Your task to perform on an android device: change the clock style Image 0: 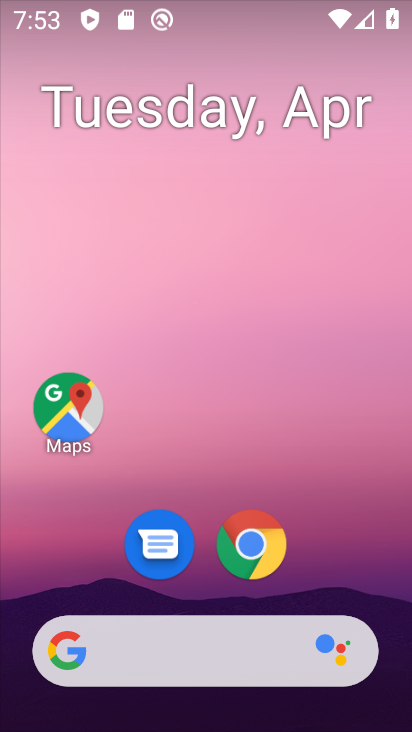
Step 0: drag from (244, 496) to (285, 10)
Your task to perform on an android device: change the clock style Image 1: 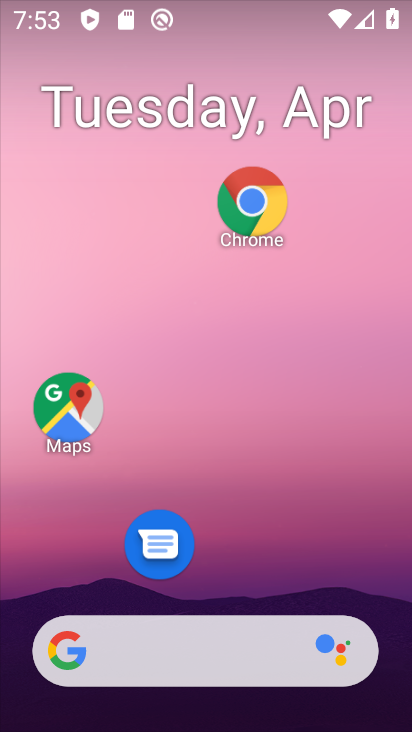
Step 1: drag from (242, 524) to (163, 95)
Your task to perform on an android device: change the clock style Image 2: 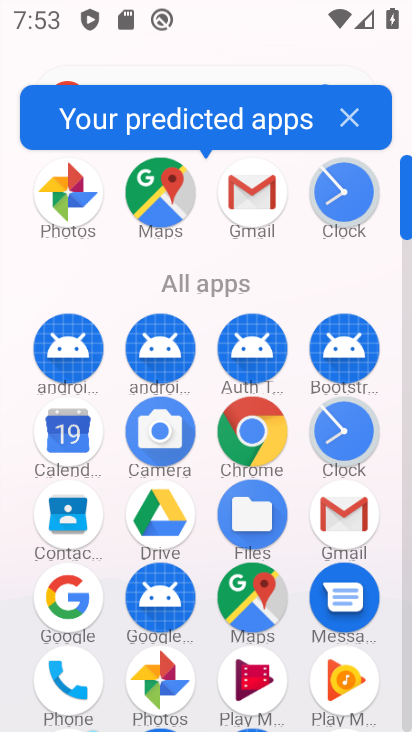
Step 2: click (335, 423)
Your task to perform on an android device: change the clock style Image 3: 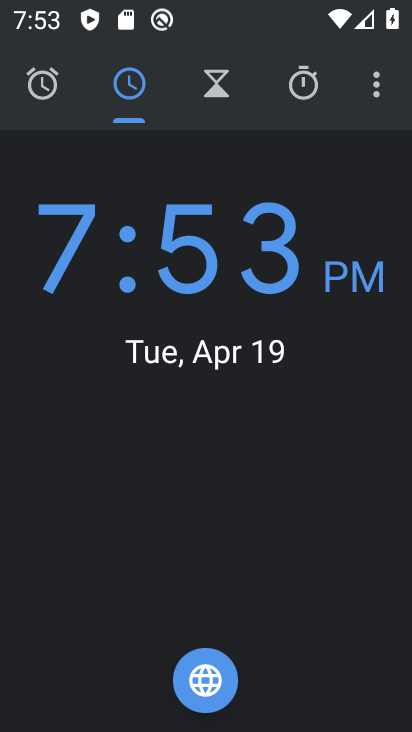
Step 3: click (379, 77)
Your task to perform on an android device: change the clock style Image 4: 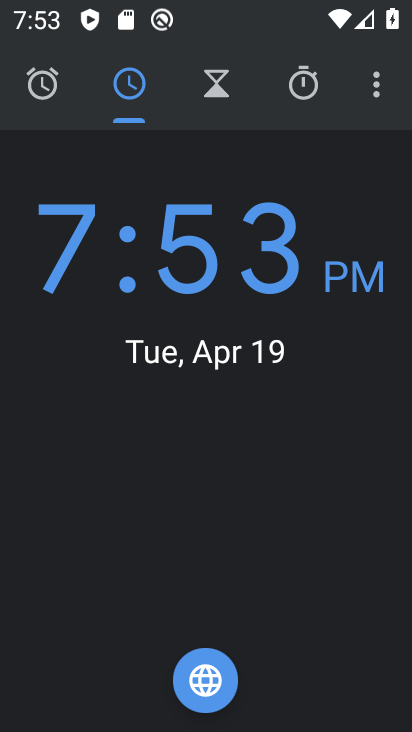
Step 4: click (370, 88)
Your task to perform on an android device: change the clock style Image 5: 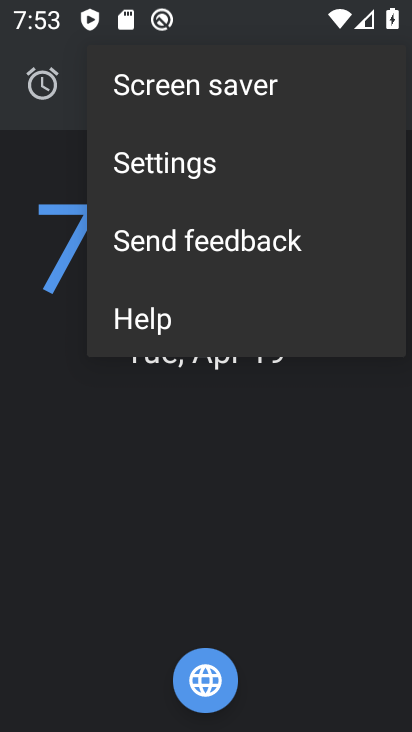
Step 5: click (163, 181)
Your task to perform on an android device: change the clock style Image 6: 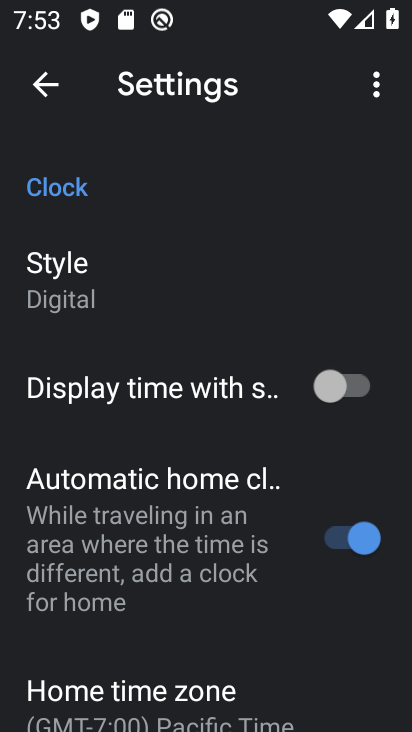
Step 6: click (114, 260)
Your task to perform on an android device: change the clock style Image 7: 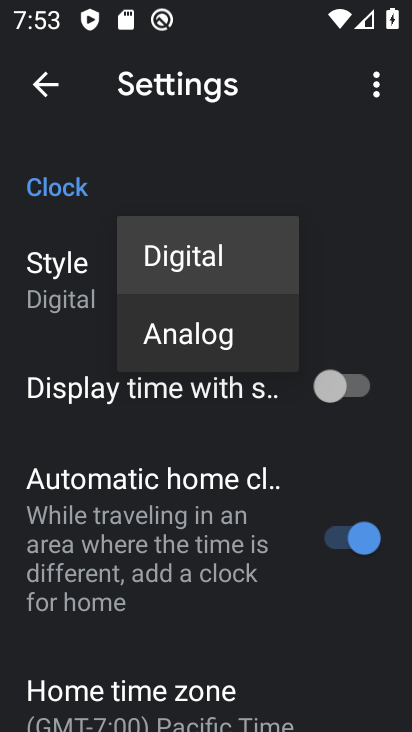
Step 7: click (179, 327)
Your task to perform on an android device: change the clock style Image 8: 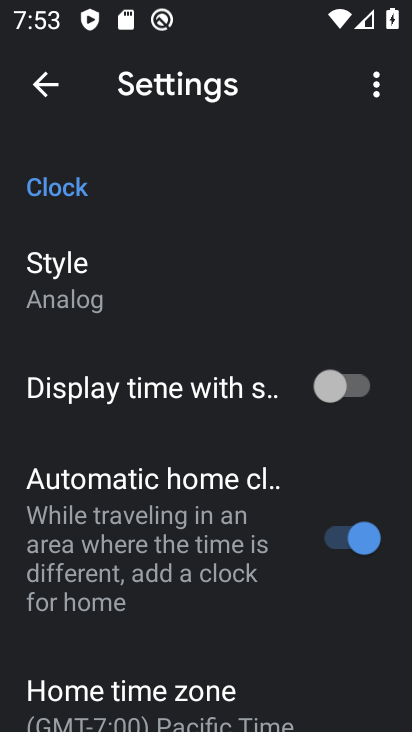
Step 8: task complete